Your task to perform on an android device: open chrome privacy settings Image 0: 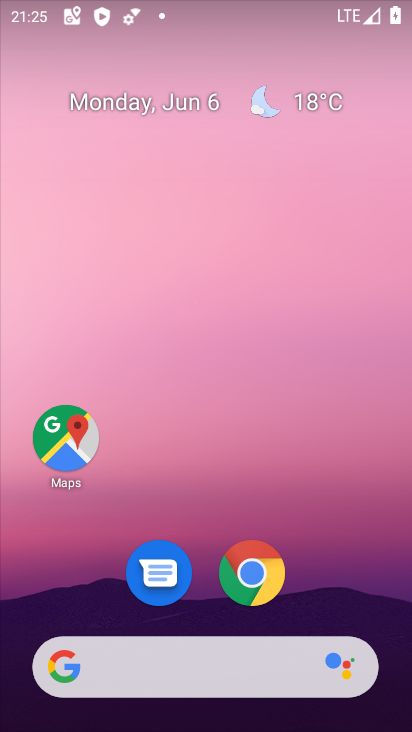
Step 0: click (273, 577)
Your task to perform on an android device: open chrome privacy settings Image 1: 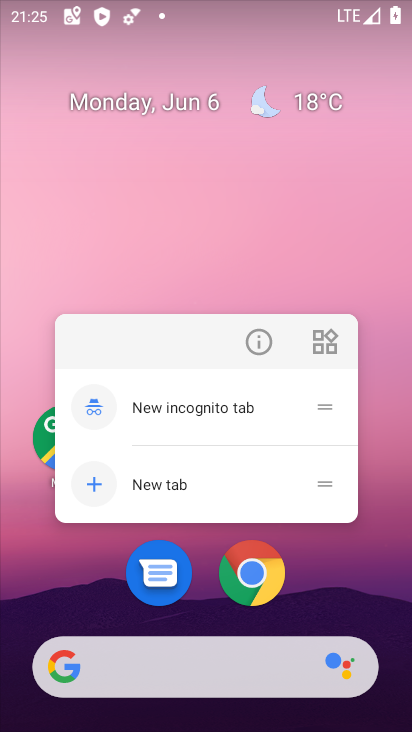
Step 1: click (273, 577)
Your task to perform on an android device: open chrome privacy settings Image 2: 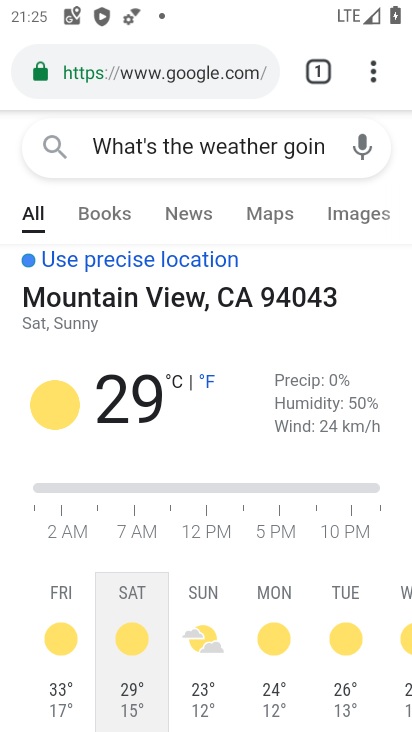
Step 2: click (382, 81)
Your task to perform on an android device: open chrome privacy settings Image 3: 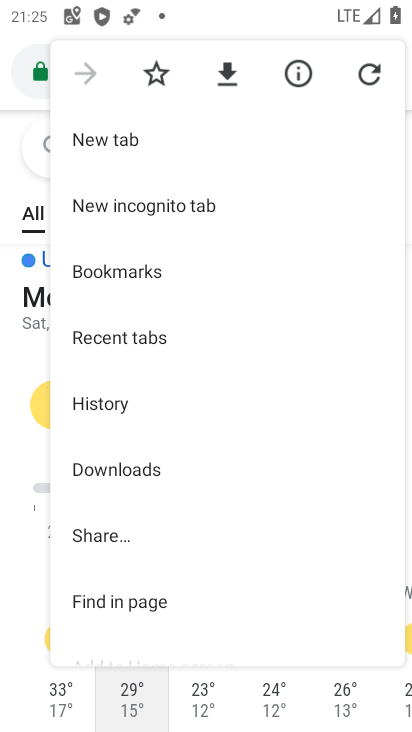
Step 3: drag from (193, 607) to (142, 187)
Your task to perform on an android device: open chrome privacy settings Image 4: 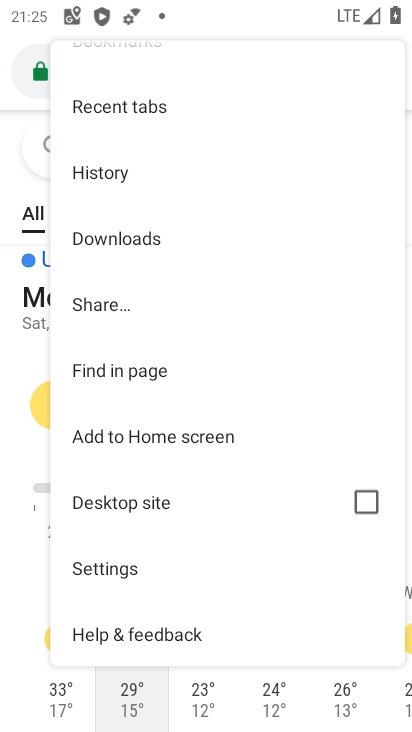
Step 4: click (110, 556)
Your task to perform on an android device: open chrome privacy settings Image 5: 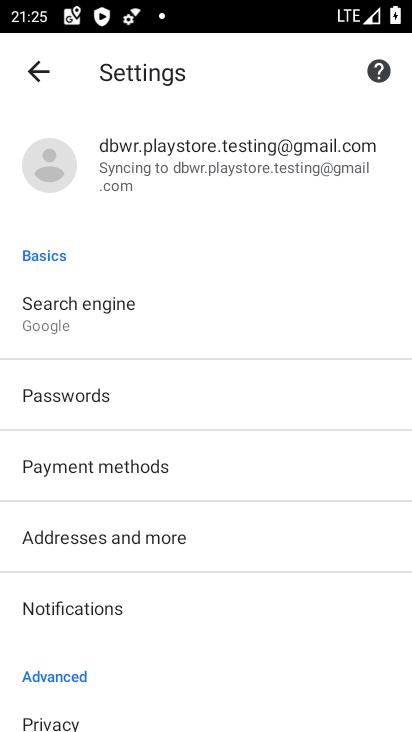
Step 5: drag from (194, 686) to (204, 356)
Your task to perform on an android device: open chrome privacy settings Image 6: 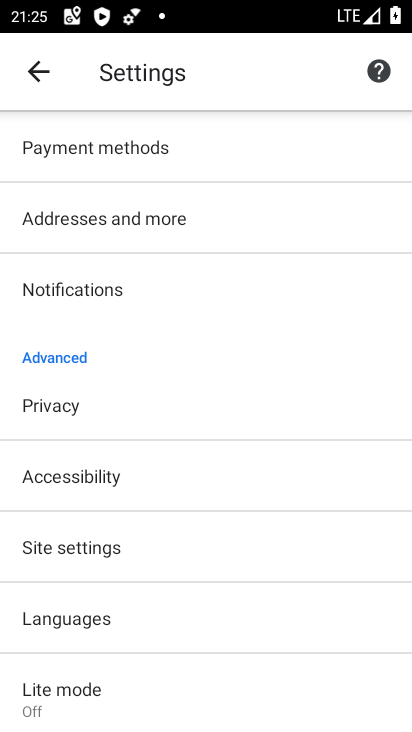
Step 6: click (196, 401)
Your task to perform on an android device: open chrome privacy settings Image 7: 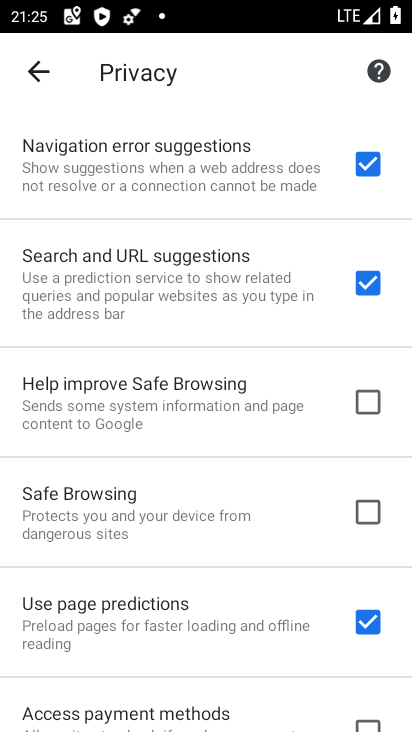
Step 7: task complete